Your task to perform on an android device: Go to Android settings Image 0: 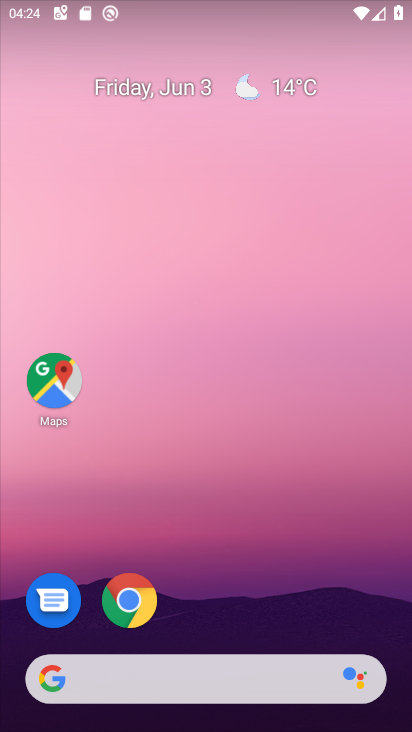
Step 0: drag from (281, 535) to (305, 186)
Your task to perform on an android device: Go to Android settings Image 1: 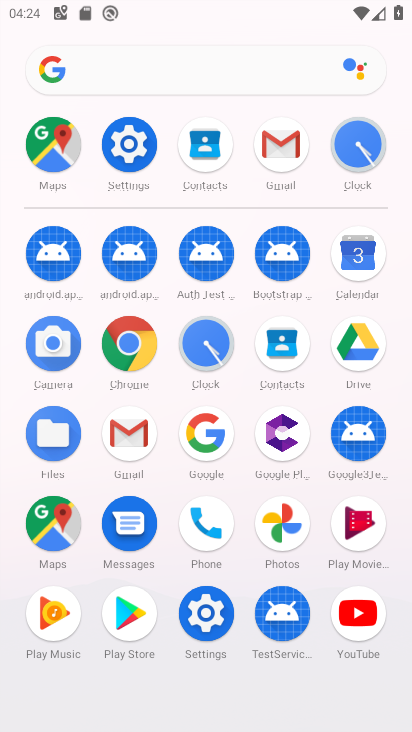
Step 1: click (140, 152)
Your task to perform on an android device: Go to Android settings Image 2: 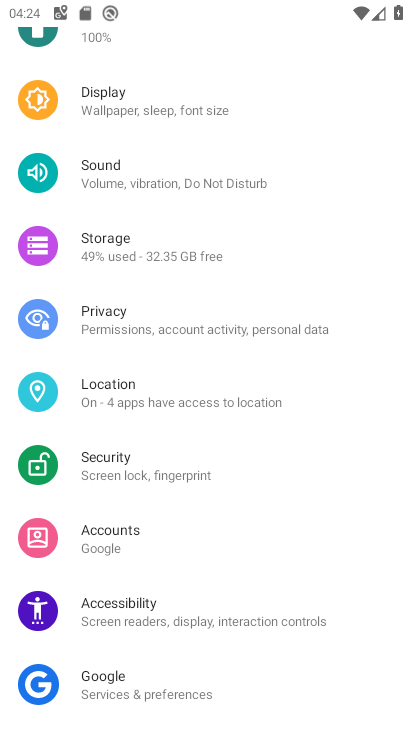
Step 2: task complete